Your task to perform on an android device: turn on data saver in the chrome app Image 0: 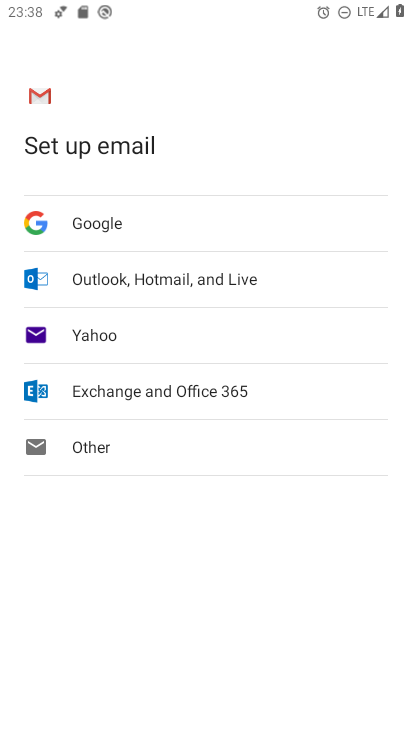
Step 0: press home button
Your task to perform on an android device: turn on data saver in the chrome app Image 1: 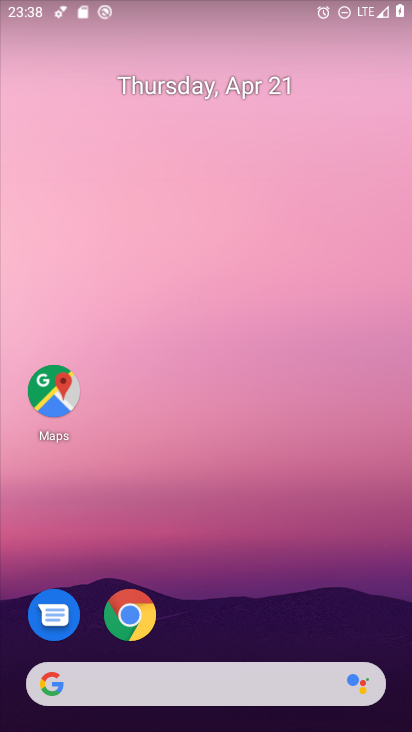
Step 1: drag from (234, 636) to (254, 56)
Your task to perform on an android device: turn on data saver in the chrome app Image 2: 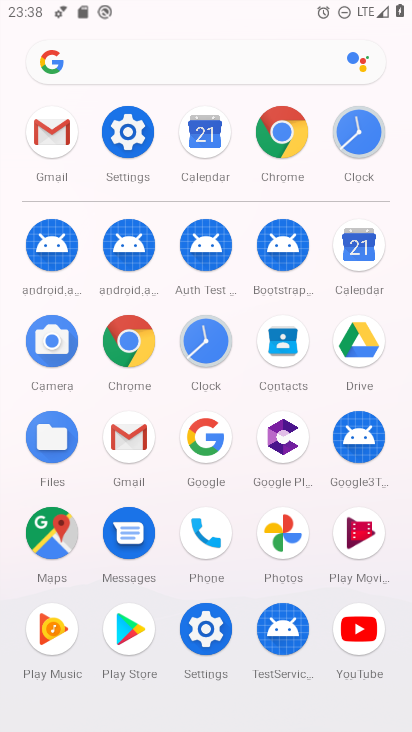
Step 2: click (127, 332)
Your task to perform on an android device: turn on data saver in the chrome app Image 3: 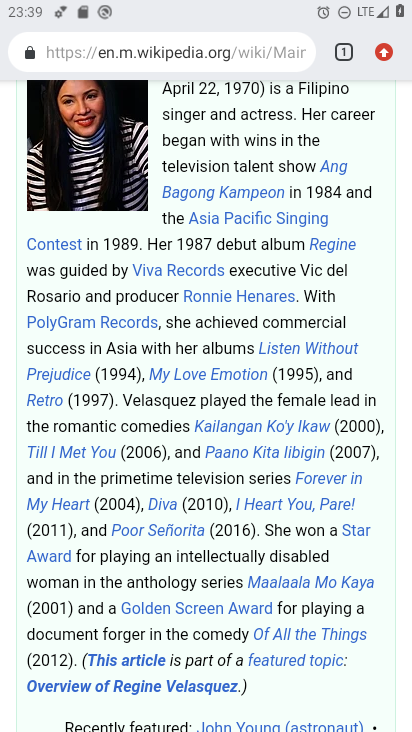
Step 3: click (381, 47)
Your task to perform on an android device: turn on data saver in the chrome app Image 4: 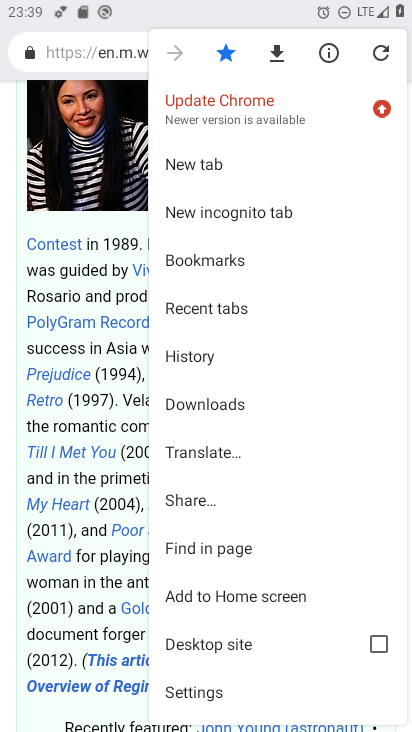
Step 4: click (226, 692)
Your task to perform on an android device: turn on data saver in the chrome app Image 5: 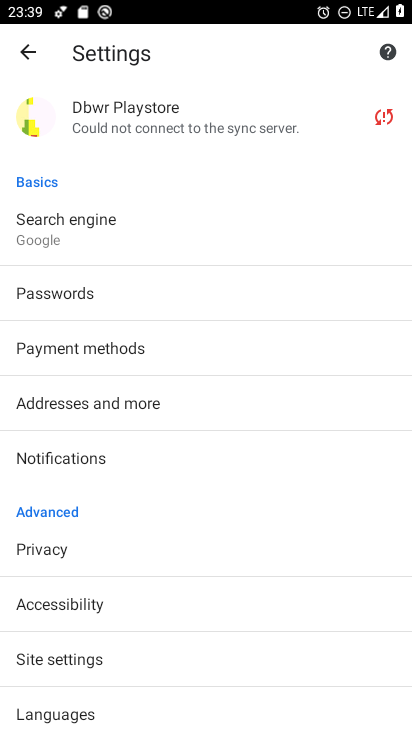
Step 5: drag from (142, 701) to (184, 128)
Your task to perform on an android device: turn on data saver in the chrome app Image 6: 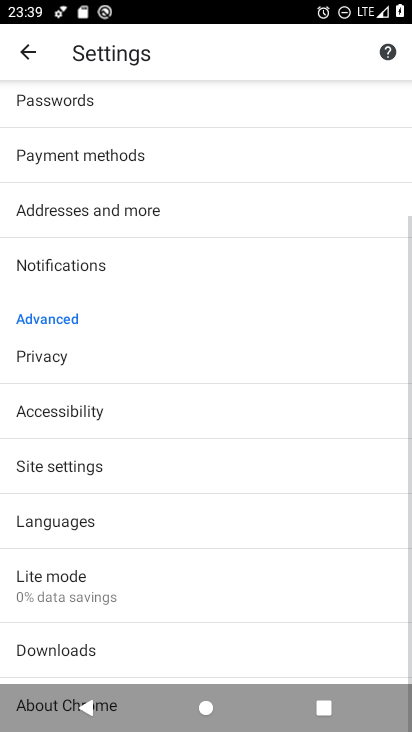
Step 6: click (127, 584)
Your task to perform on an android device: turn on data saver in the chrome app Image 7: 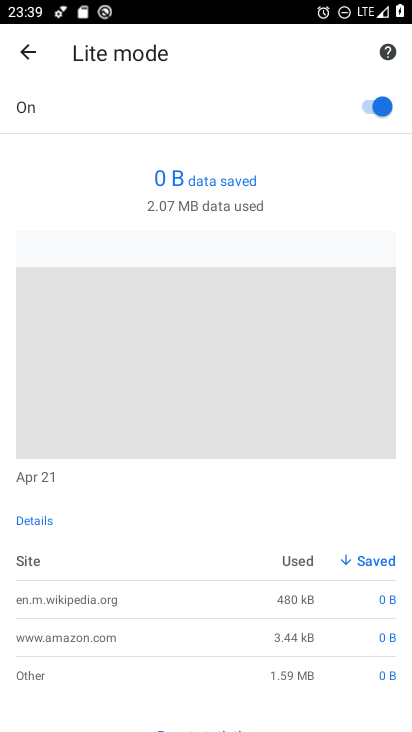
Step 7: task complete